Your task to perform on an android device: What's on my calendar tomorrow? Image 0: 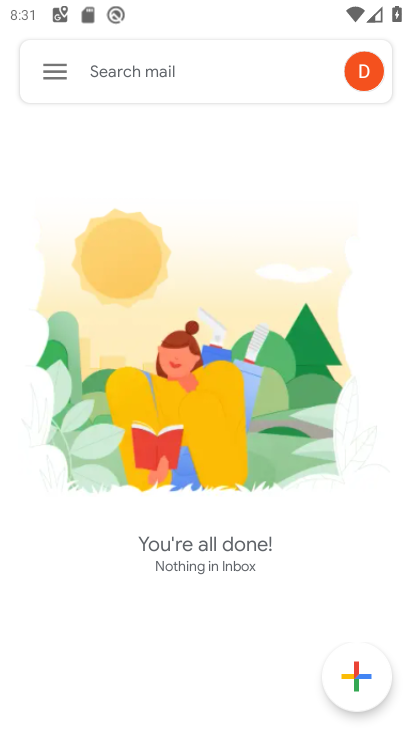
Step 0: press home button
Your task to perform on an android device: What's on my calendar tomorrow? Image 1: 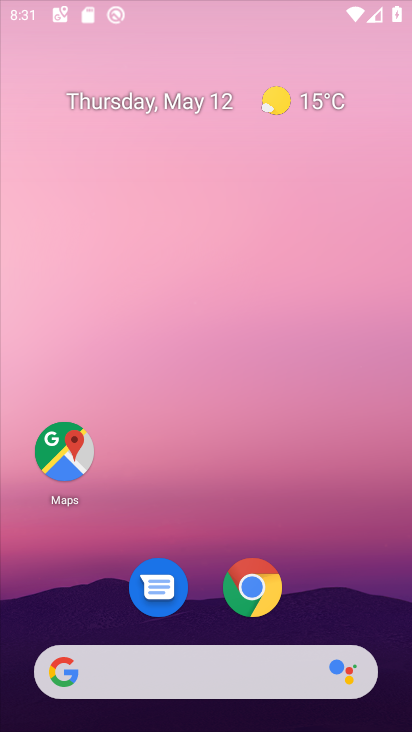
Step 1: drag from (379, 616) to (331, 15)
Your task to perform on an android device: What's on my calendar tomorrow? Image 2: 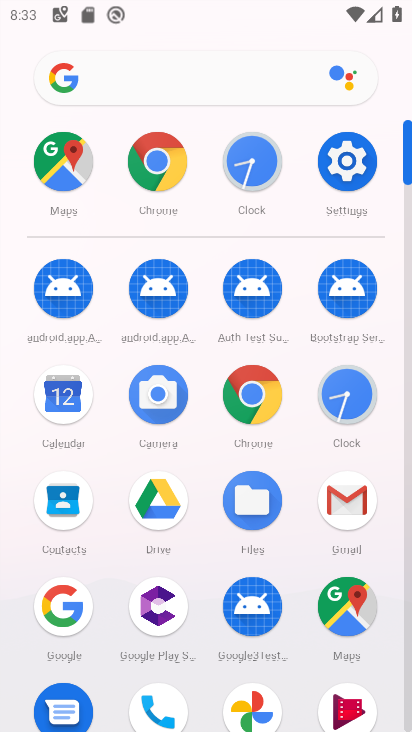
Step 2: click (58, 406)
Your task to perform on an android device: What's on my calendar tomorrow? Image 3: 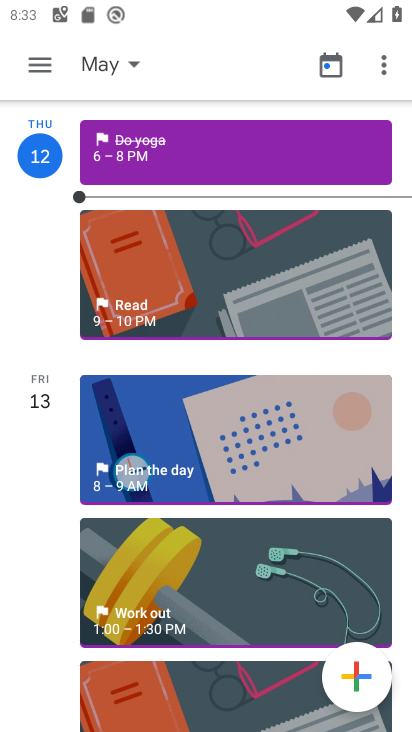
Step 3: click (109, 52)
Your task to perform on an android device: What's on my calendar tomorrow? Image 4: 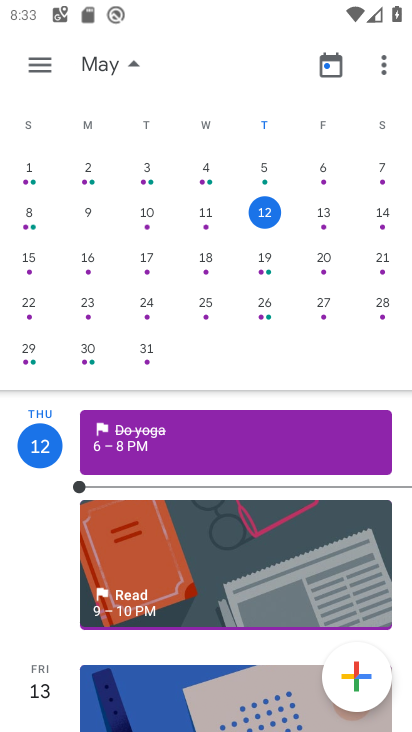
Step 4: click (387, 211)
Your task to perform on an android device: What's on my calendar tomorrow? Image 5: 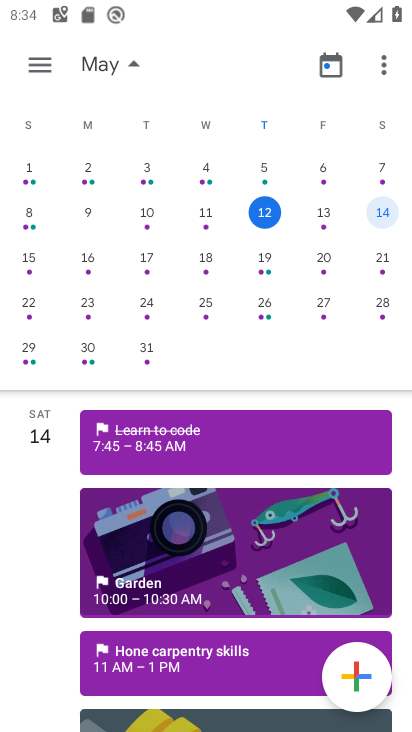
Step 5: task complete